Your task to perform on an android device: turn off smart reply in the gmail app Image 0: 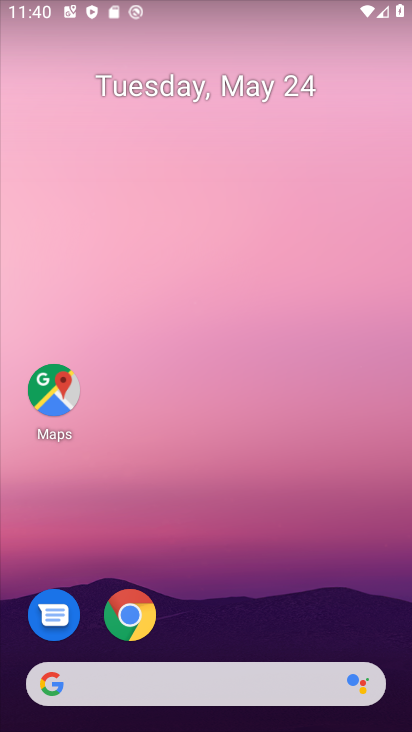
Step 0: drag from (246, 610) to (226, 75)
Your task to perform on an android device: turn off smart reply in the gmail app Image 1: 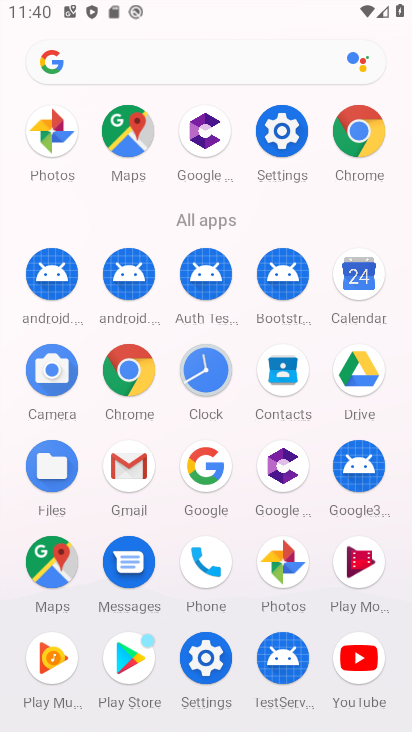
Step 1: click (129, 465)
Your task to perform on an android device: turn off smart reply in the gmail app Image 2: 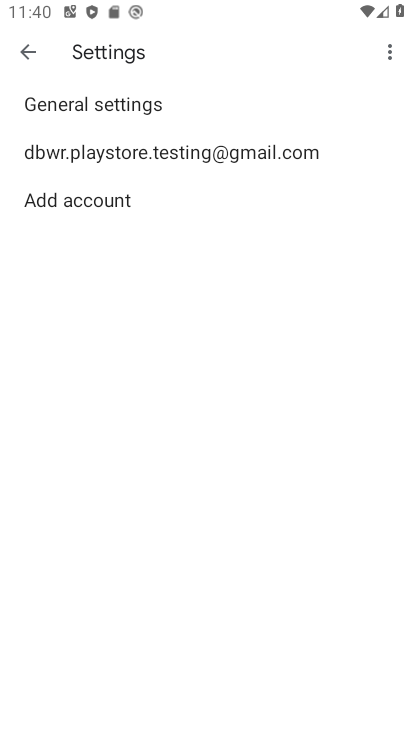
Step 2: click (217, 152)
Your task to perform on an android device: turn off smart reply in the gmail app Image 3: 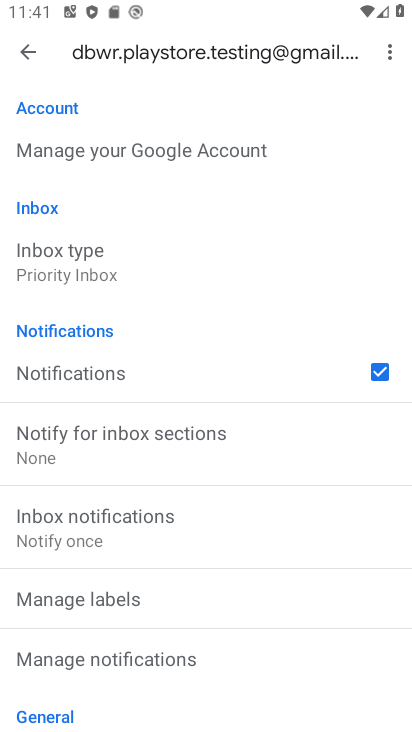
Step 3: drag from (116, 530) to (147, 374)
Your task to perform on an android device: turn off smart reply in the gmail app Image 4: 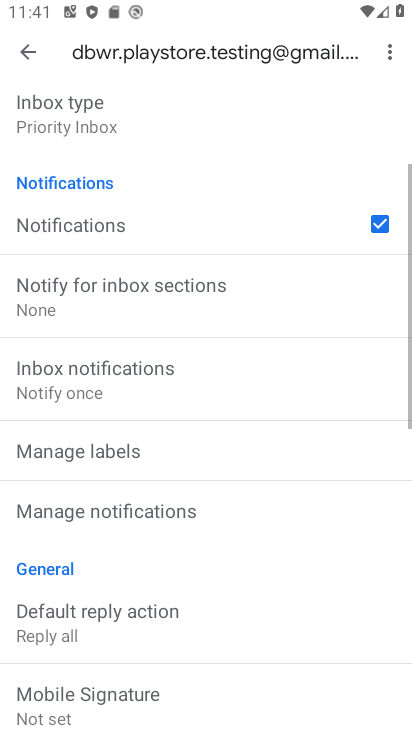
Step 4: drag from (122, 551) to (172, 440)
Your task to perform on an android device: turn off smart reply in the gmail app Image 5: 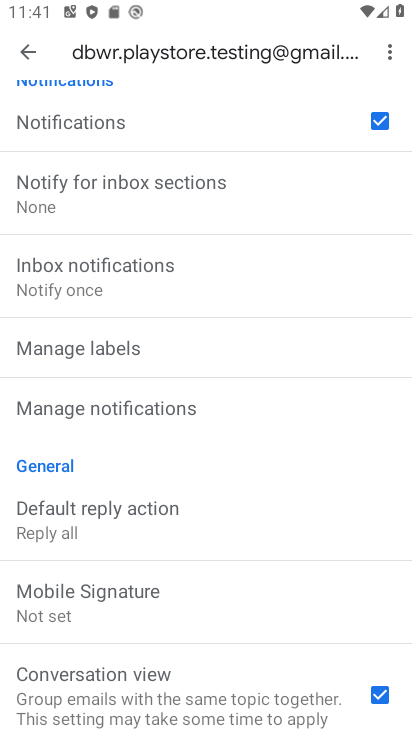
Step 5: drag from (121, 536) to (154, 430)
Your task to perform on an android device: turn off smart reply in the gmail app Image 6: 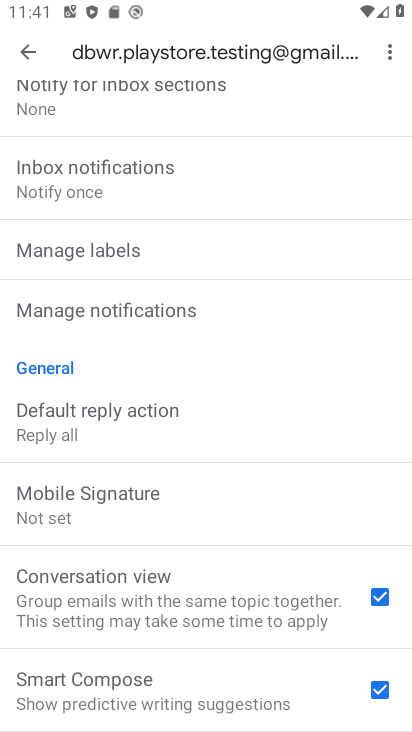
Step 6: drag from (117, 525) to (133, 416)
Your task to perform on an android device: turn off smart reply in the gmail app Image 7: 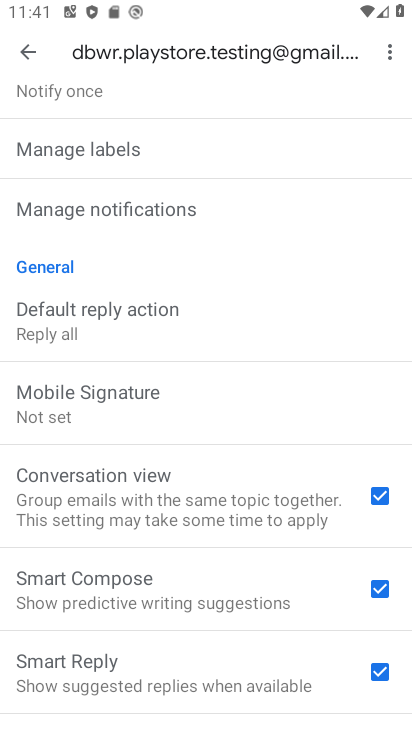
Step 7: drag from (166, 580) to (221, 461)
Your task to perform on an android device: turn off smart reply in the gmail app Image 8: 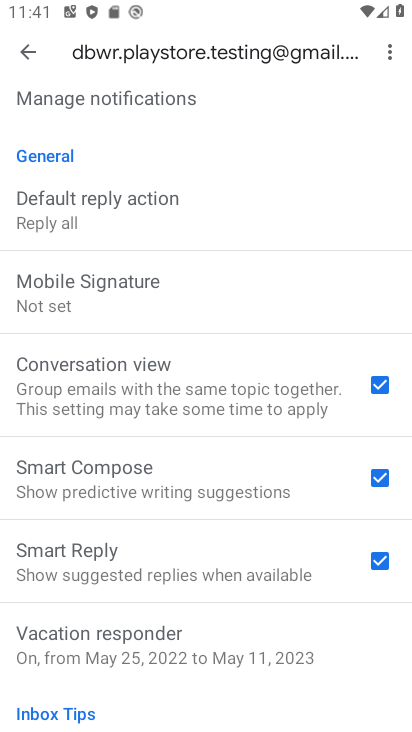
Step 8: click (376, 567)
Your task to perform on an android device: turn off smart reply in the gmail app Image 9: 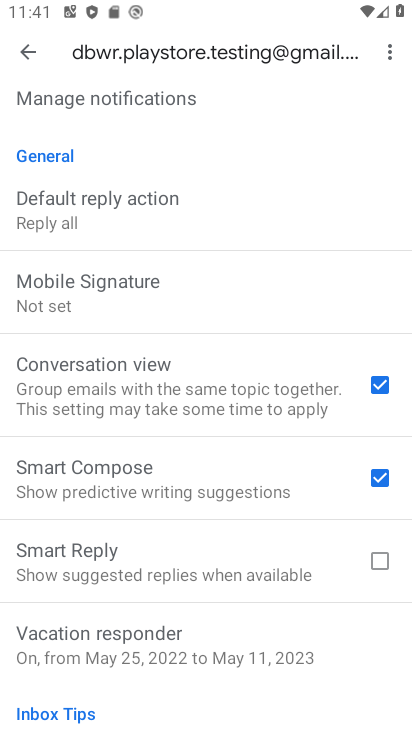
Step 9: task complete